Your task to perform on an android device: turn off location history Image 0: 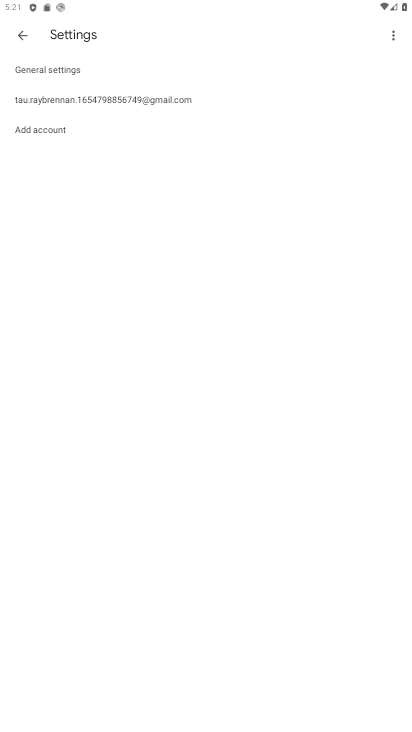
Step 0: press home button
Your task to perform on an android device: turn off location history Image 1: 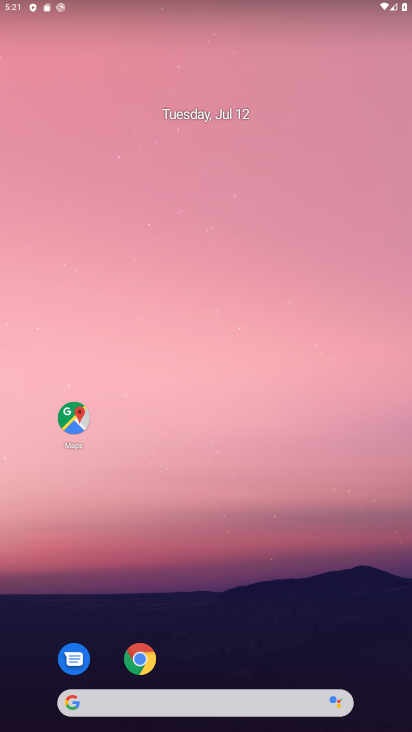
Step 1: drag from (208, 90) to (151, 14)
Your task to perform on an android device: turn off location history Image 2: 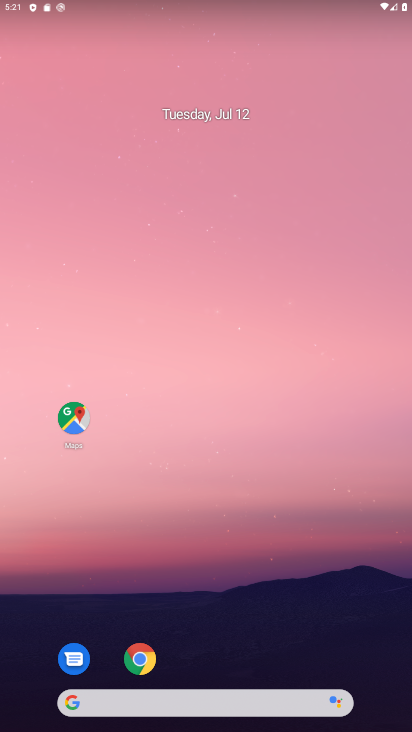
Step 2: drag from (231, 634) to (158, 14)
Your task to perform on an android device: turn off location history Image 3: 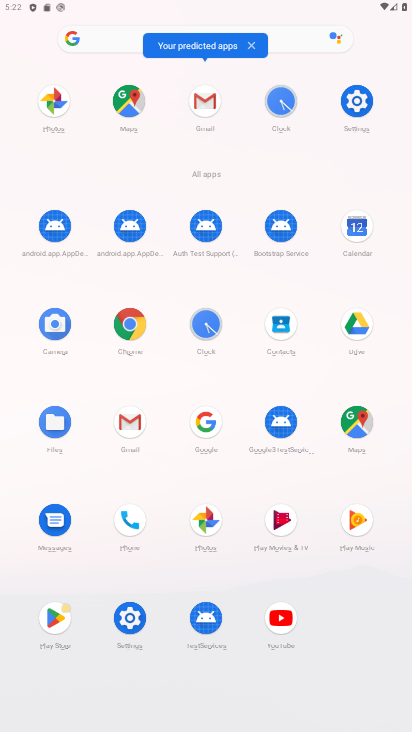
Step 3: click (124, 629)
Your task to perform on an android device: turn off location history Image 4: 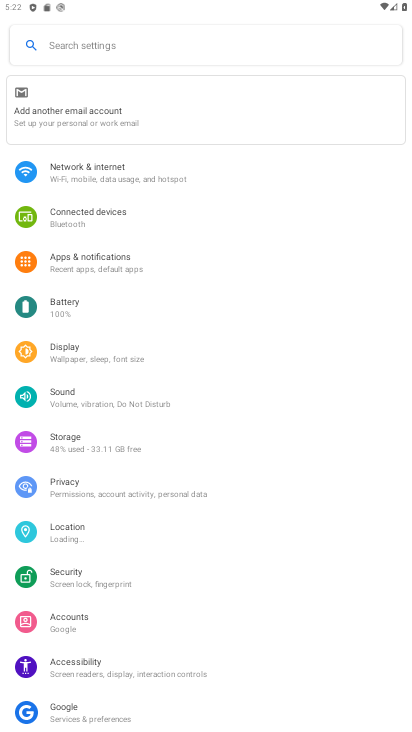
Step 4: click (79, 530)
Your task to perform on an android device: turn off location history Image 5: 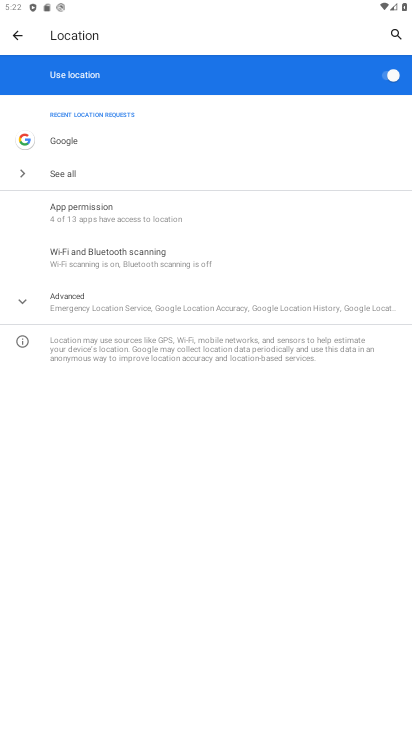
Step 5: click (103, 307)
Your task to perform on an android device: turn off location history Image 6: 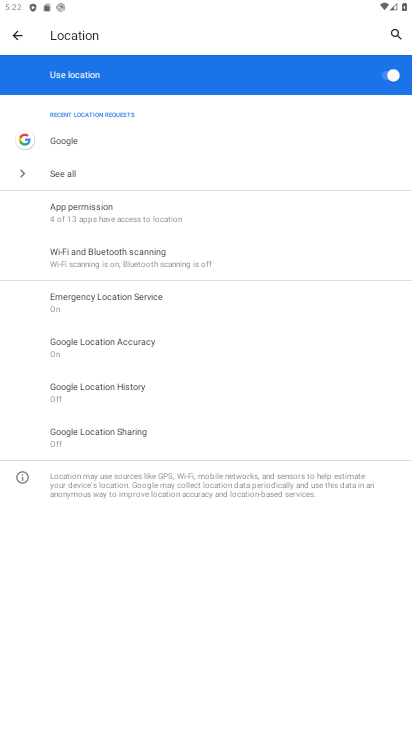
Step 6: click (98, 389)
Your task to perform on an android device: turn off location history Image 7: 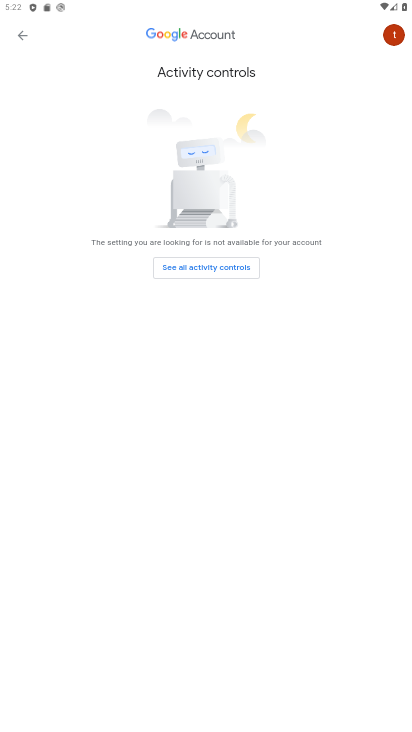
Step 7: task complete